Your task to perform on an android device: Search for seafood restaurants on Google Maps Image 0: 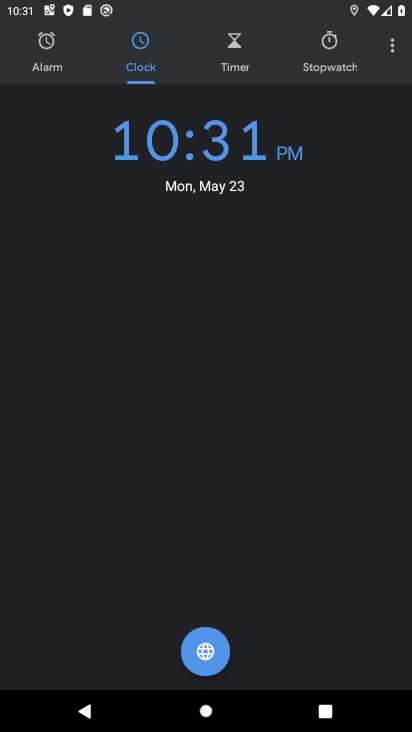
Step 0: press home button
Your task to perform on an android device: Search for seafood restaurants on Google Maps Image 1: 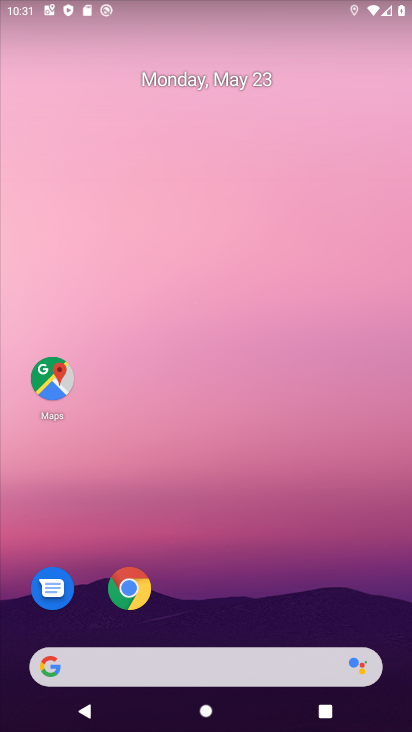
Step 1: drag from (218, 591) to (263, 157)
Your task to perform on an android device: Search for seafood restaurants on Google Maps Image 2: 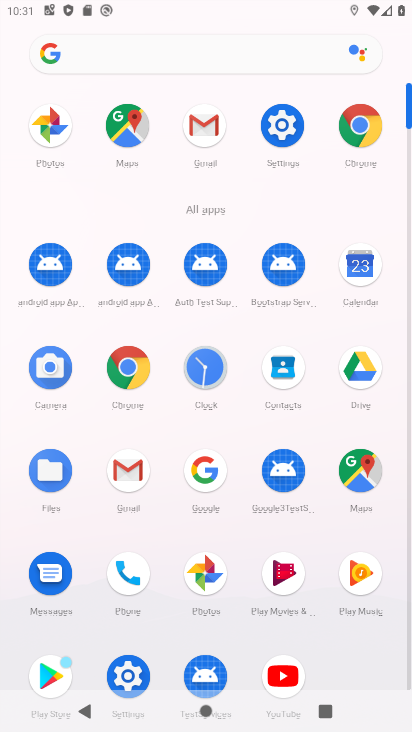
Step 2: click (135, 132)
Your task to perform on an android device: Search for seafood restaurants on Google Maps Image 3: 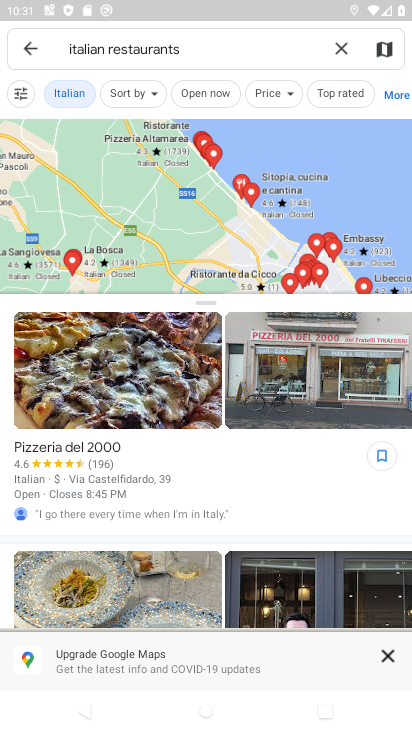
Step 3: click (217, 63)
Your task to perform on an android device: Search for seafood restaurants on Google Maps Image 4: 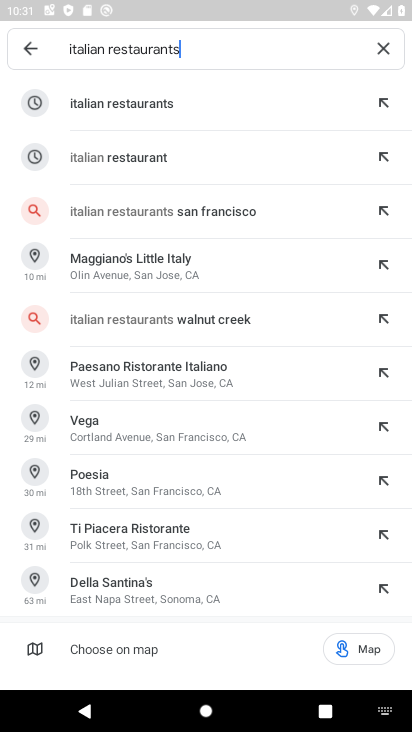
Step 4: click (377, 42)
Your task to perform on an android device: Search for seafood restaurants on Google Maps Image 5: 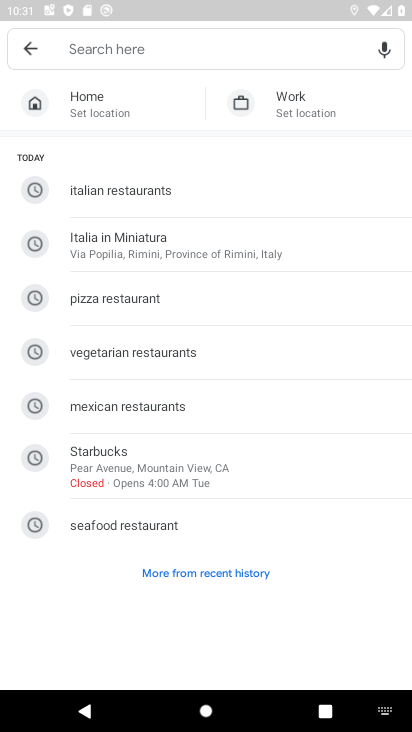
Step 5: type "seafood restaurants"
Your task to perform on an android device: Search for seafood restaurants on Google Maps Image 6: 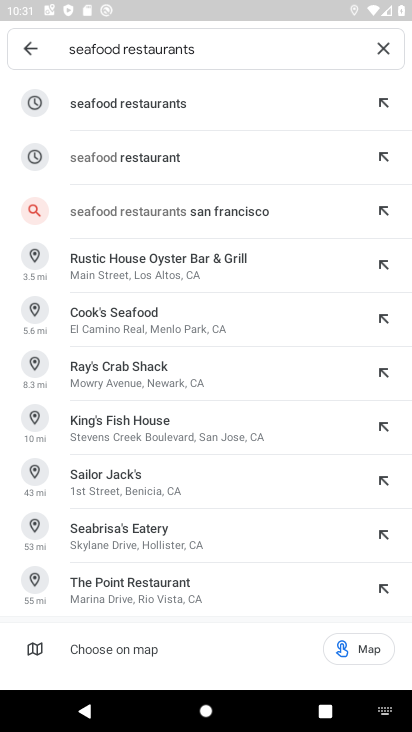
Step 6: click (187, 99)
Your task to perform on an android device: Search for seafood restaurants on Google Maps Image 7: 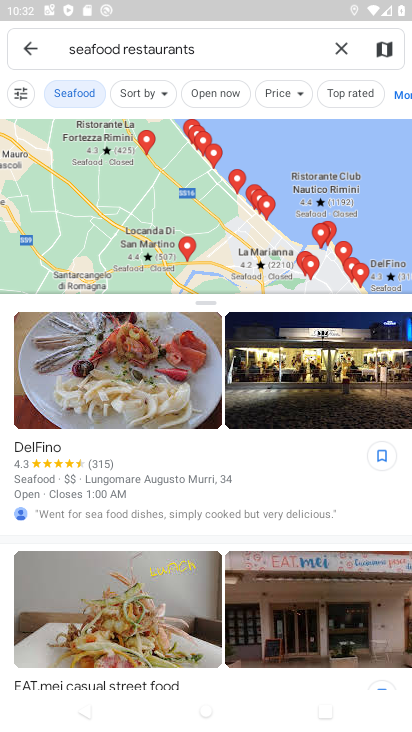
Step 7: task complete